Your task to perform on an android device: allow notifications from all sites in the chrome app Image 0: 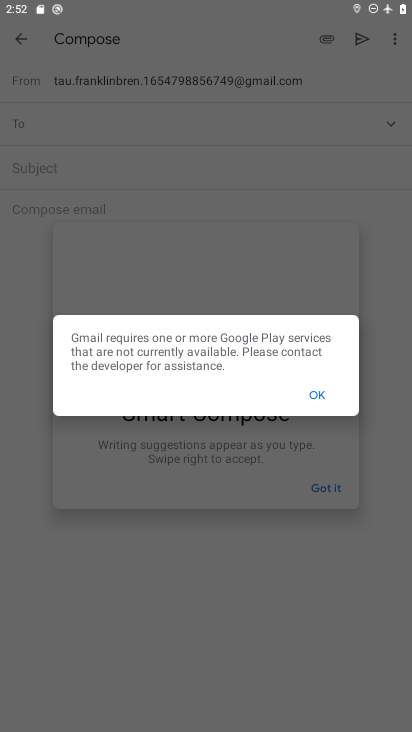
Step 0: press home button
Your task to perform on an android device: allow notifications from all sites in the chrome app Image 1: 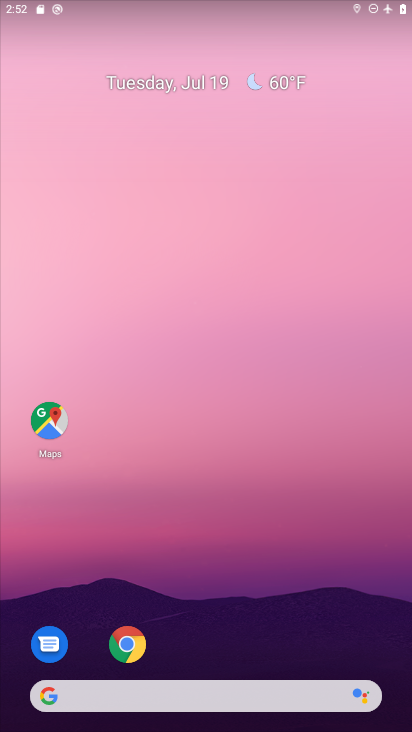
Step 1: drag from (211, 683) to (196, 75)
Your task to perform on an android device: allow notifications from all sites in the chrome app Image 2: 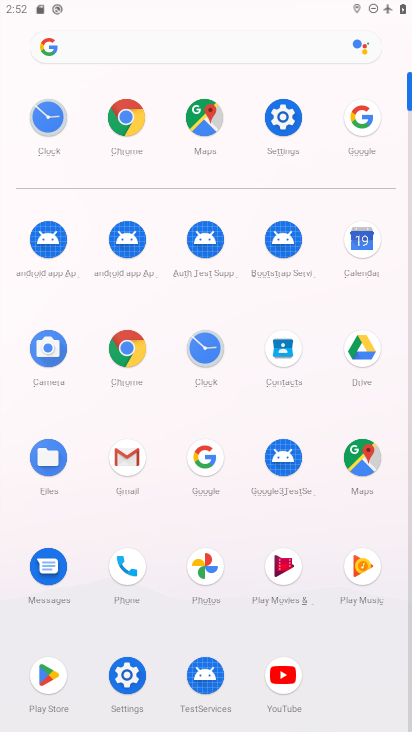
Step 2: click (137, 336)
Your task to perform on an android device: allow notifications from all sites in the chrome app Image 3: 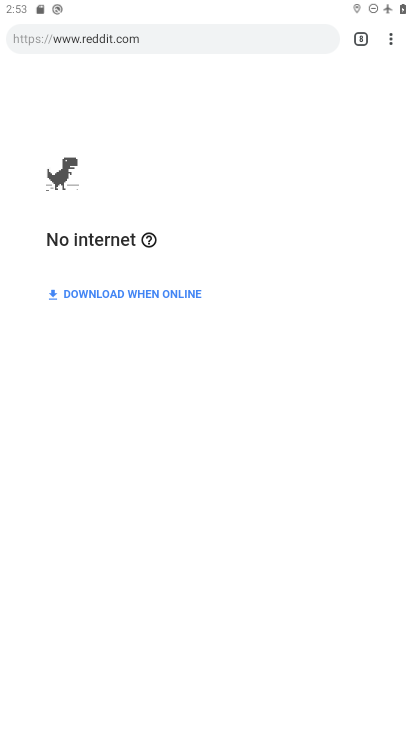
Step 3: drag from (392, 43) to (262, 438)
Your task to perform on an android device: allow notifications from all sites in the chrome app Image 4: 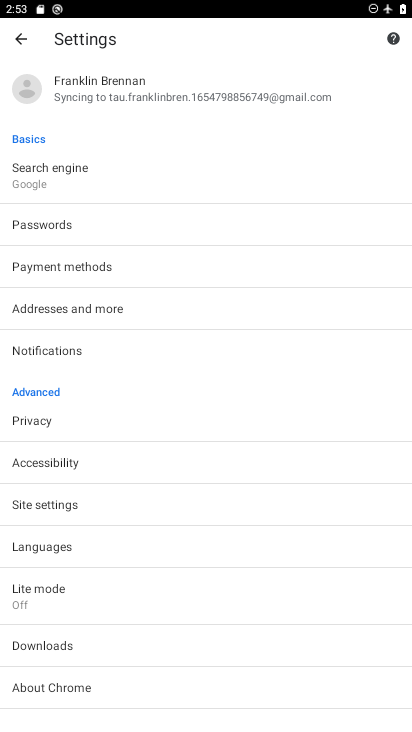
Step 4: click (62, 498)
Your task to perform on an android device: allow notifications from all sites in the chrome app Image 5: 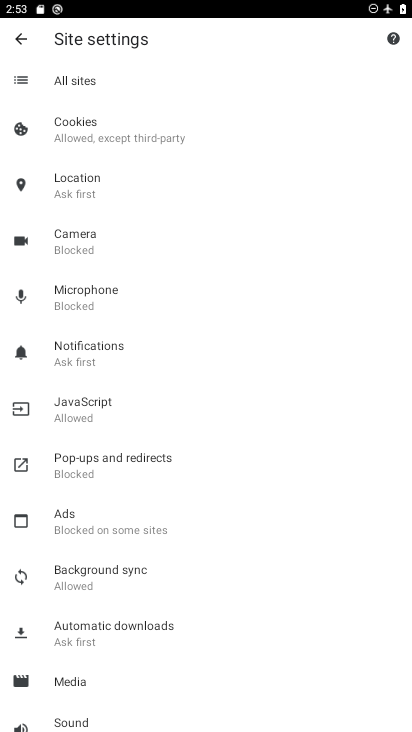
Step 5: click (87, 349)
Your task to perform on an android device: allow notifications from all sites in the chrome app Image 6: 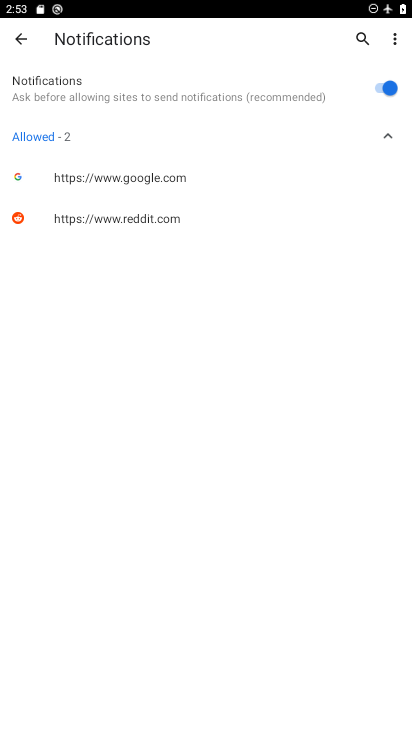
Step 6: task complete